Your task to perform on an android device: uninstall "Nova Launcher" Image 0: 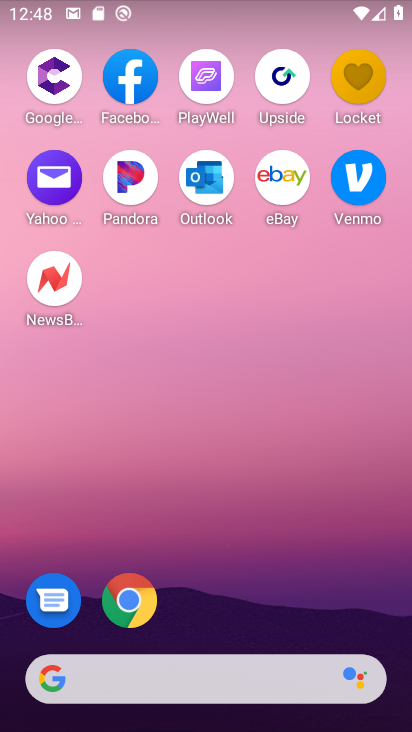
Step 0: drag from (257, 634) to (219, 142)
Your task to perform on an android device: uninstall "Nova Launcher" Image 1: 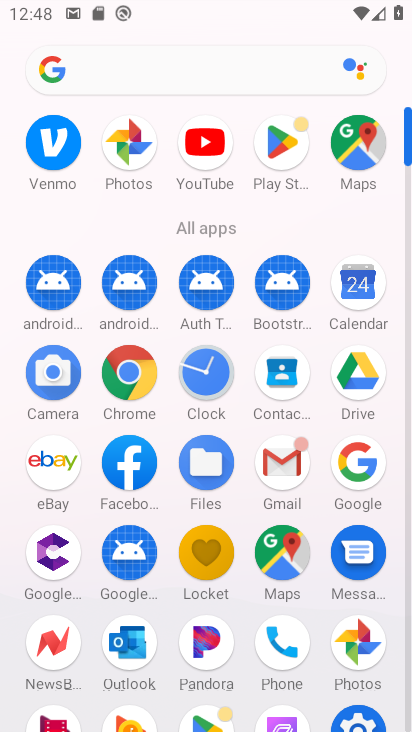
Step 1: click (290, 151)
Your task to perform on an android device: uninstall "Nova Launcher" Image 2: 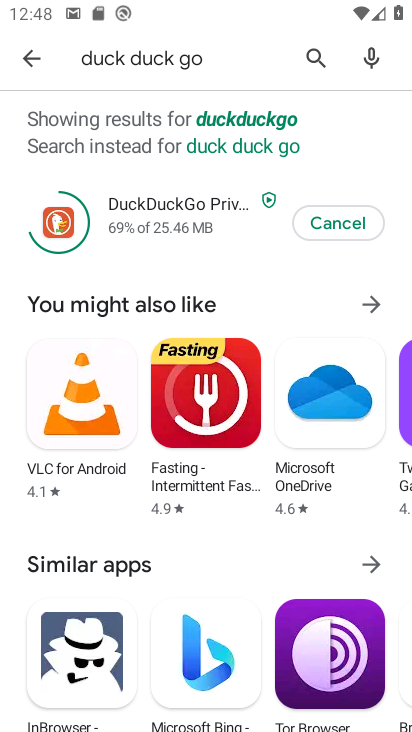
Step 2: click (322, 61)
Your task to perform on an android device: uninstall "Nova Launcher" Image 3: 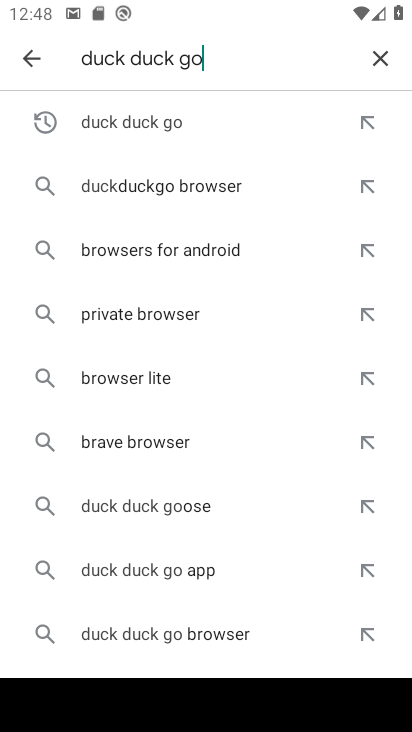
Step 3: click (375, 66)
Your task to perform on an android device: uninstall "Nova Launcher" Image 4: 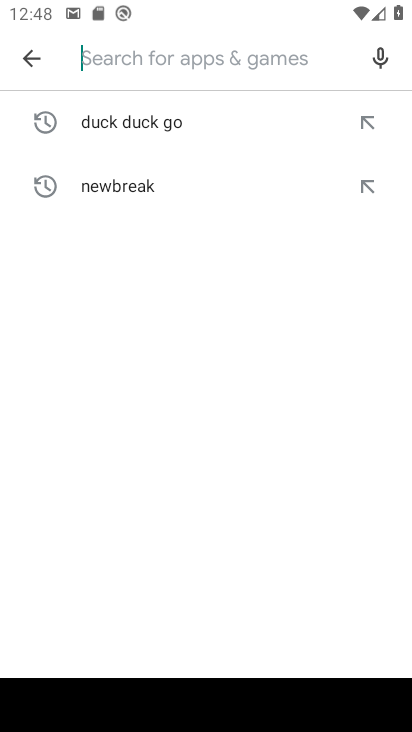
Step 4: type "nova lainchwe"
Your task to perform on an android device: uninstall "Nova Launcher" Image 5: 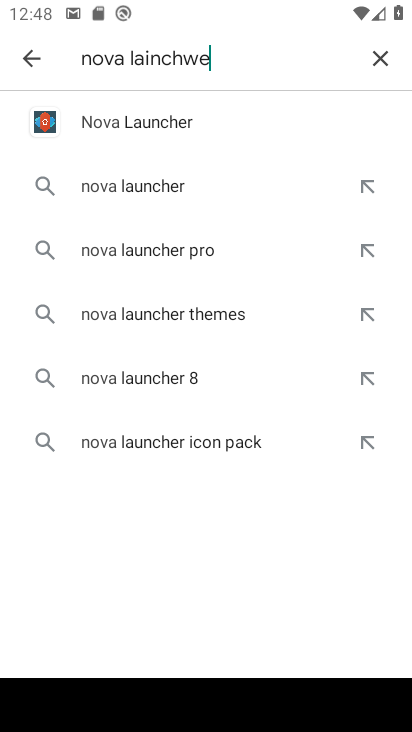
Step 5: click (179, 126)
Your task to perform on an android device: uninstall "Nova Launcher" Image 6: 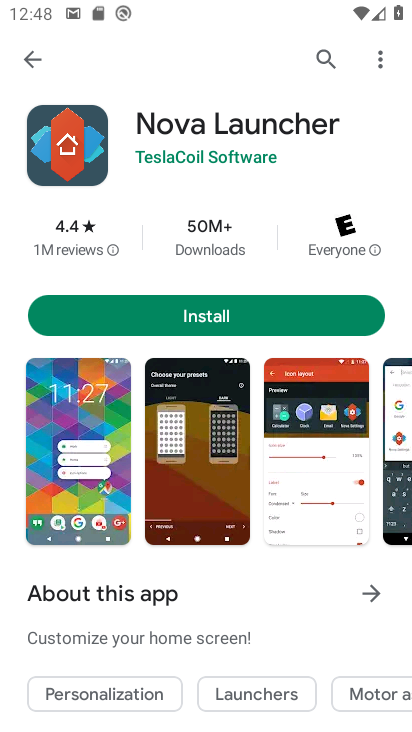
Step 6: click (236, 309)
Your task to perform on an android device: uninstall "Nova Launcher" Image 7: 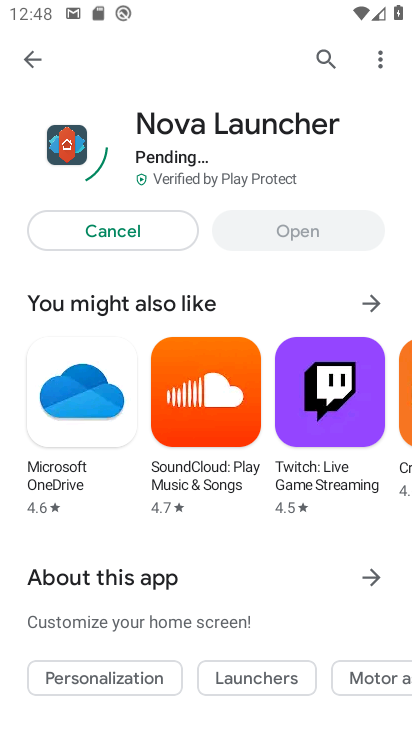
Step 7: task complete